Your task to perform on an android device: toggle wifi Image 0: 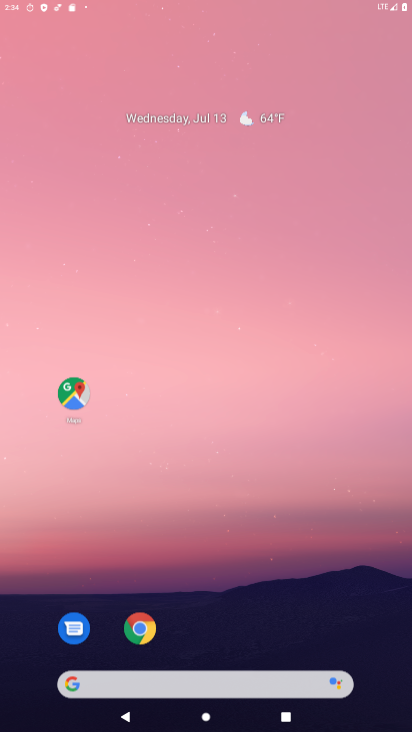
Step 0: drag from (241, 209) to (272, 4)
Your task to perform on an android device: toggle wifi Image 1: 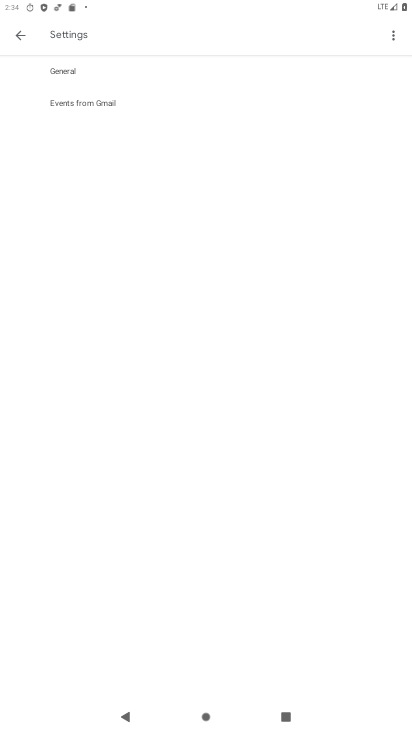
Step 1: press home button
Your task to perform on an android device: toggle wifi Image 2: 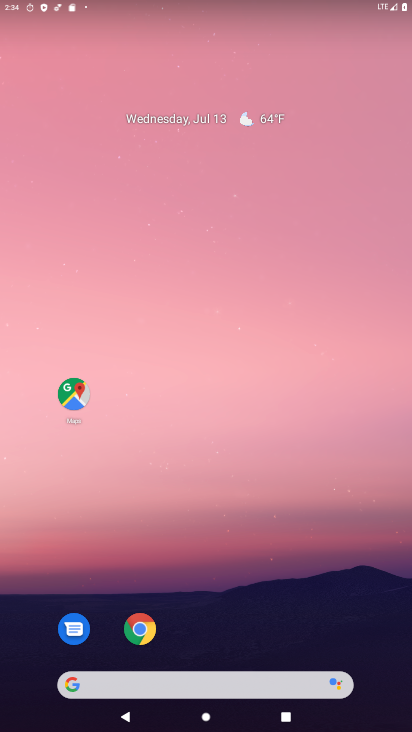
Step 2: drag from (226, 678) to (247, 34)
Your task to perform on an android device: toggle wifi Image 3: 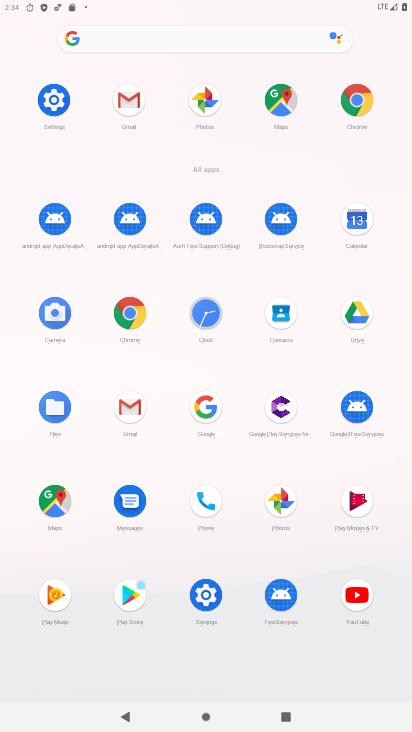
Step 3: click (48, 95)
Your task to perform on an android device: toggle wifi Image 4: 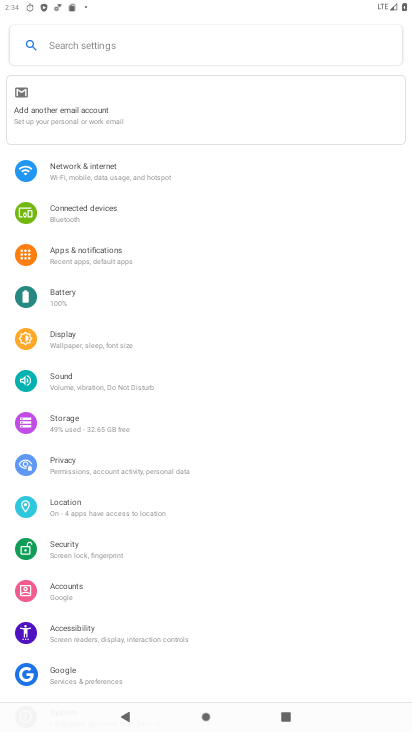
Step 4: click (148, 176)
Your task to perform on an android device: toggle wifi Image 5: 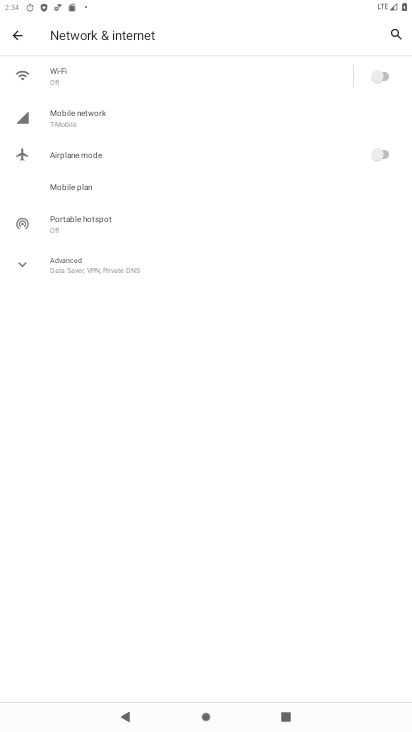
Step 5: click (382, 74)
Your task to perform on an android device: toggle wifi Image 6: 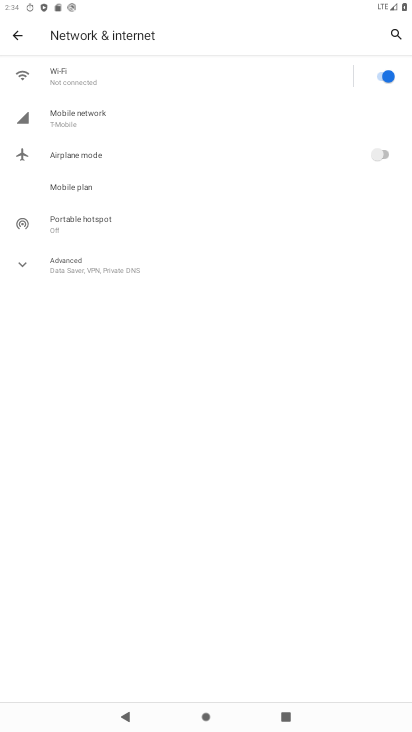
Step 6: task complete